Your task to perform on an android device: Open Maps and search for coffee Image 0: 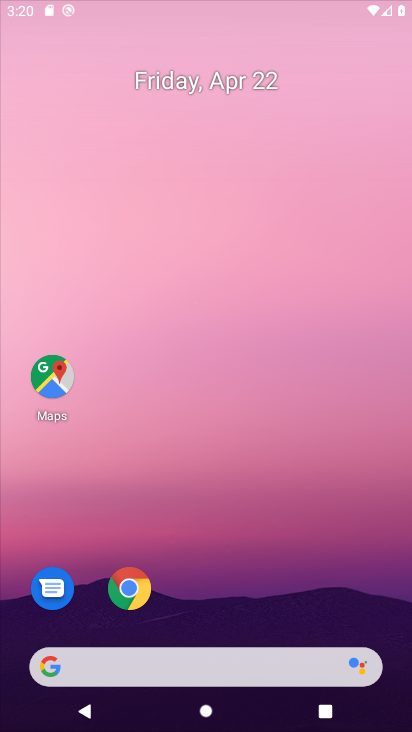
Step 0: drag from (217, 641) to (292, 90)
Your task to perform on an android device: Open Maps and search for coffee Image 1: 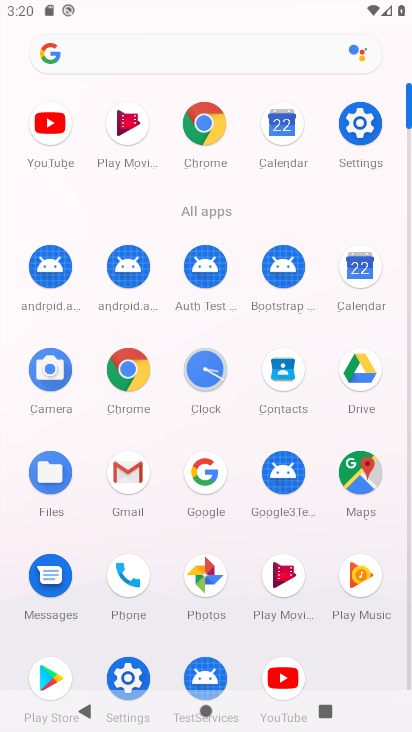
Step 1: click (367, 474)
Your task to perform on an android device: Open Maps and search for coffee Image 2: 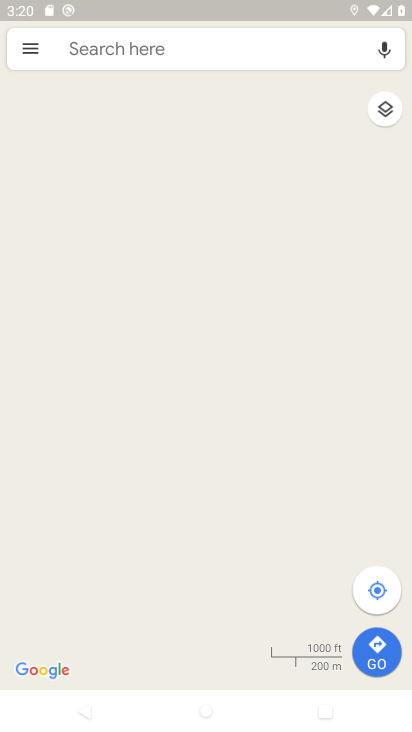
Step 2: click (172, 55)
Your task to perform on an android device: Open Maps and search for coffee Image 3: 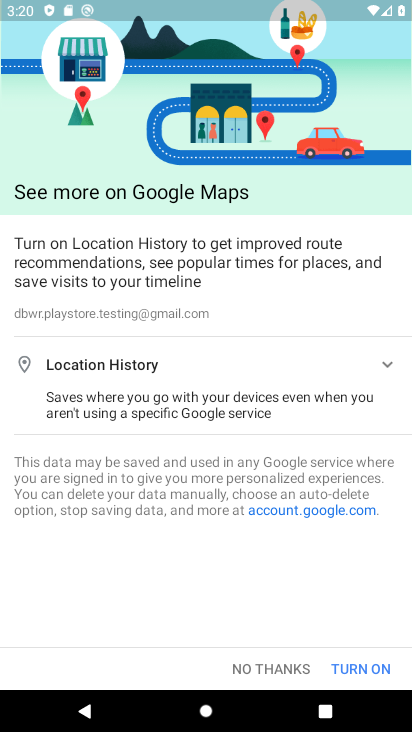
Step 3: click (292, 670)
Your task to perform on an android device: Open Maps and search for coffee Image 4: 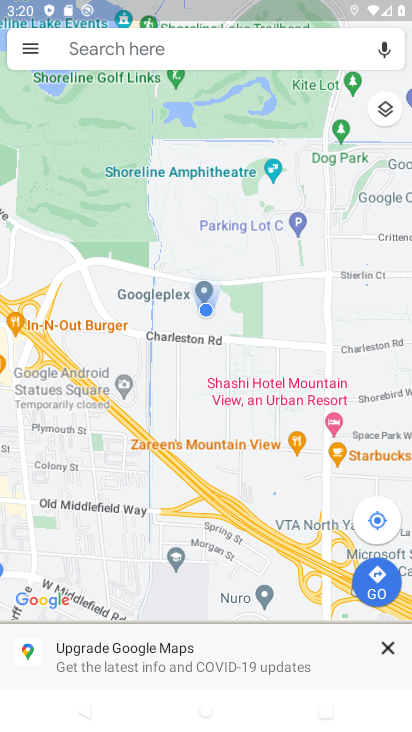
Step 4: click (200, 46)
Your task to perform on an android device: Open Maps and search for coffee Image 5: 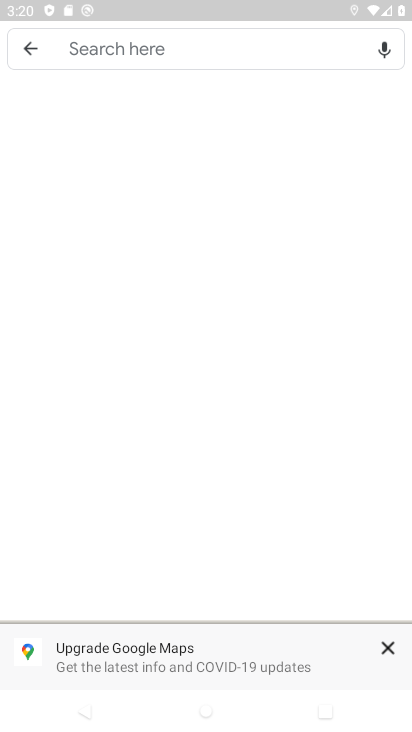
Step 5: click (200, 53)
Your task to perform on an android device: Open Maps and search for coffee Image 6: 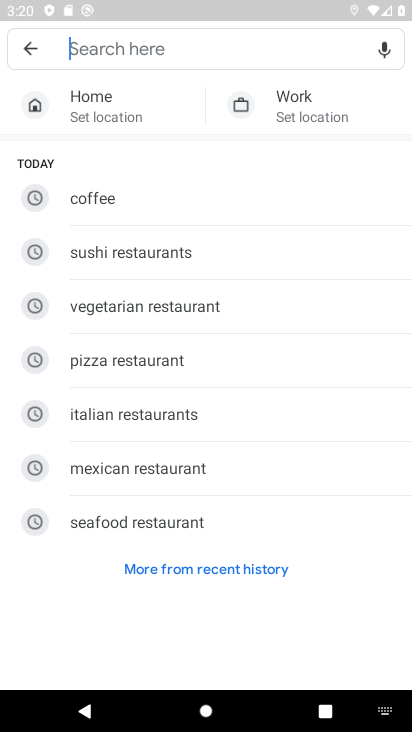
Step 6: type "Coffee "
Your task to perform on an android device: Open Maps and search for coffee Image 7: 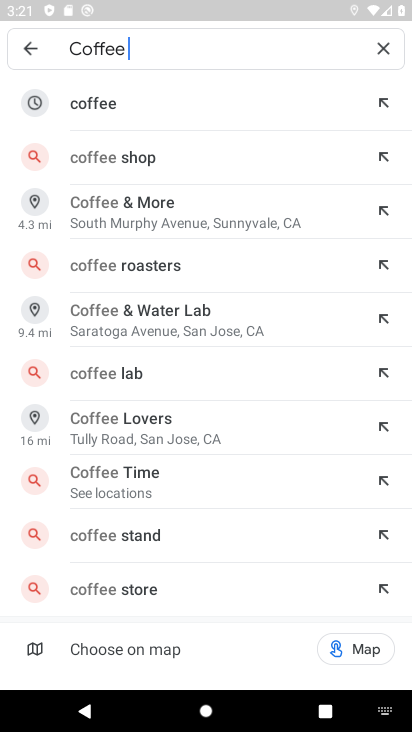
Step 7: click (143, 160)
Your task to perform on an android device: Open Maps and search for coffee Image 8: 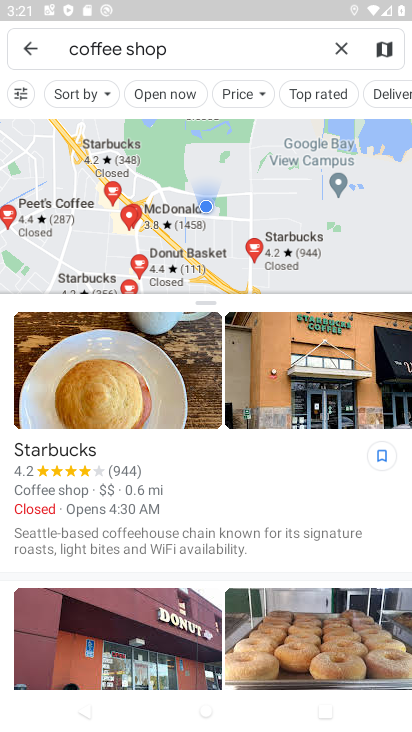
Step 8: task complete